Your task to perform on an android device: turn on bluetooth scan Image 0: 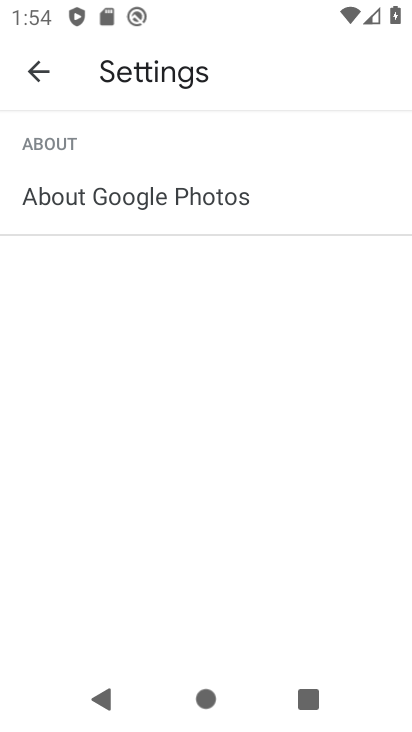
Step 0: press home button
Your task to perform on an android device: turn on bluetooth scan Image 1: 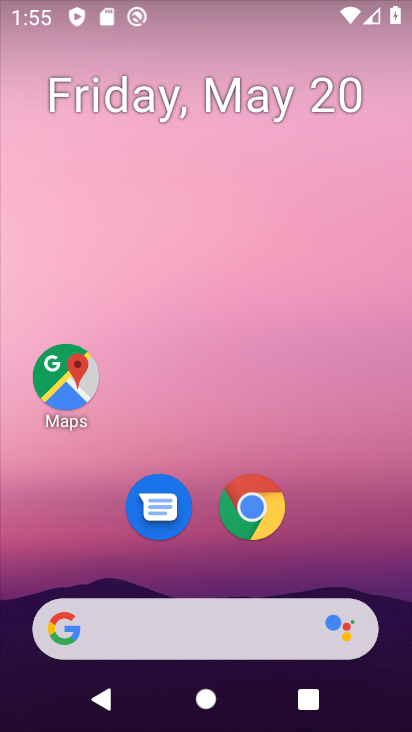
Step 1: drag from (199, 553) to (170, 18)
Your task to perform on an android device: turn on bluetooth scan Image 2: 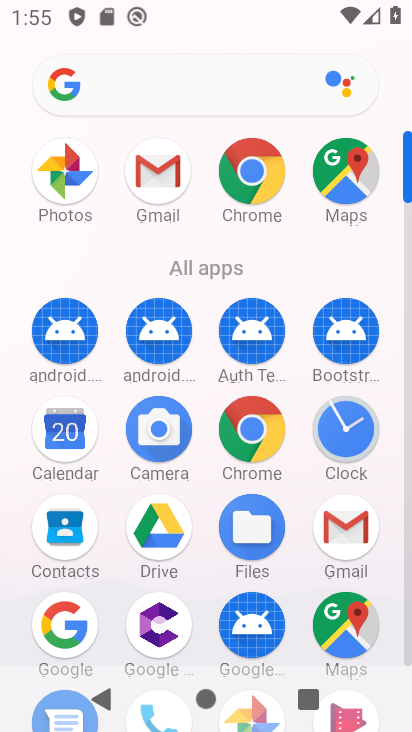
Step 2: drag from (194, 604) to (241, 191)
Your task to perform on an android device: turn on bluetooth scan Image 3: 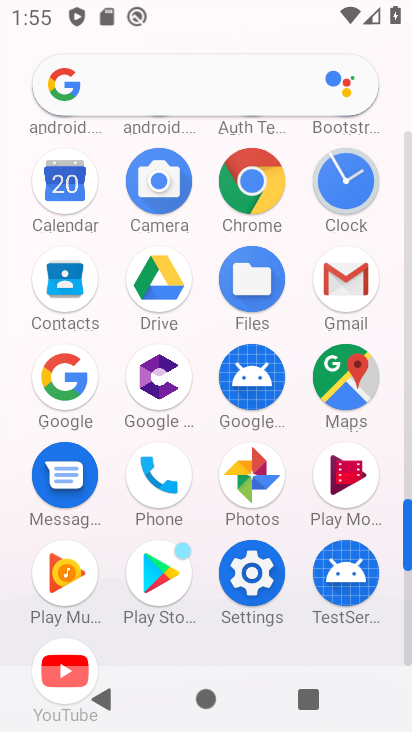
Step 3: click (231, 598)
Your task to perform on an android device: turn on bluetooth scan Image 4: 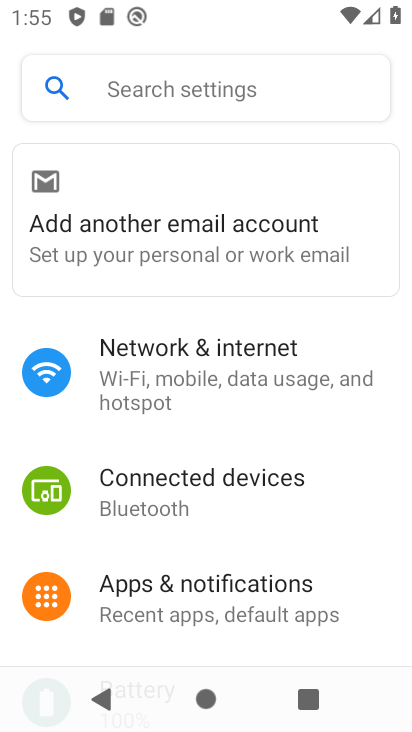
Step 4: drag from (231, 598) to (243, 321)
Your task to perform on an android device: turn on bluetooth scan Image 5: 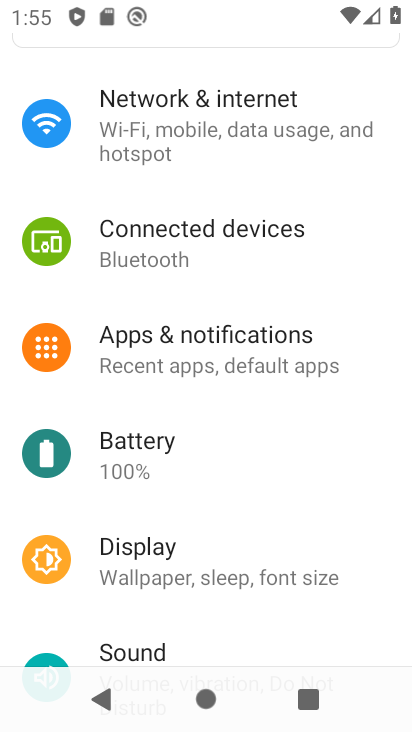
Step 5: drag from (162, 571) to (252, 186)
Your task to perform on an android device: turn on bluetooth scan Image 6: 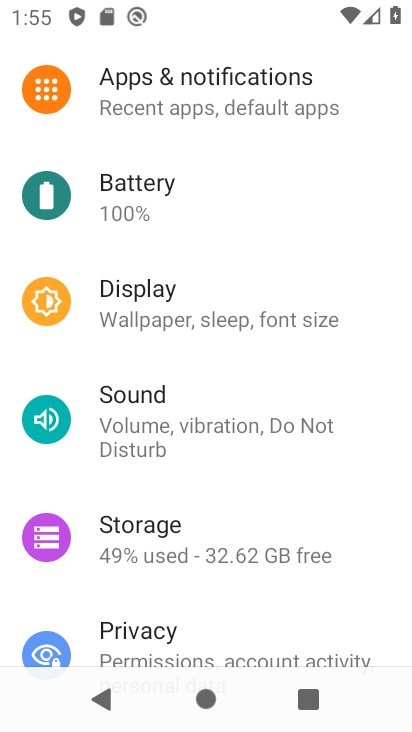
Step 6: drag from (107, 645) to (197, 281)
Your task to perform on an android device: turn on bluetooth scan Image 7: 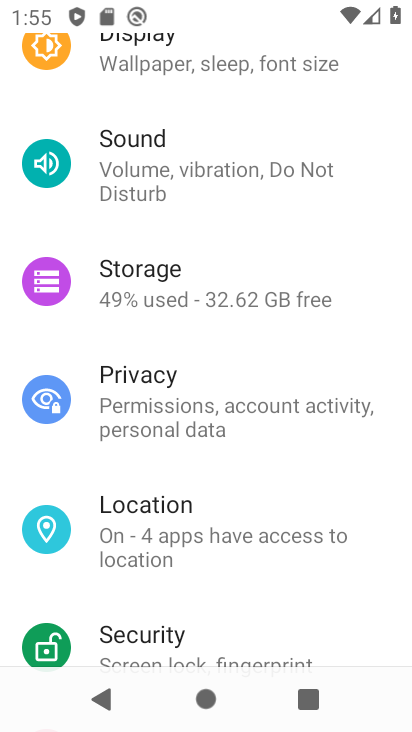
Step 7: click (145, 573)
Your task to perform on an android device: turn on bluetooth scan Image 8: 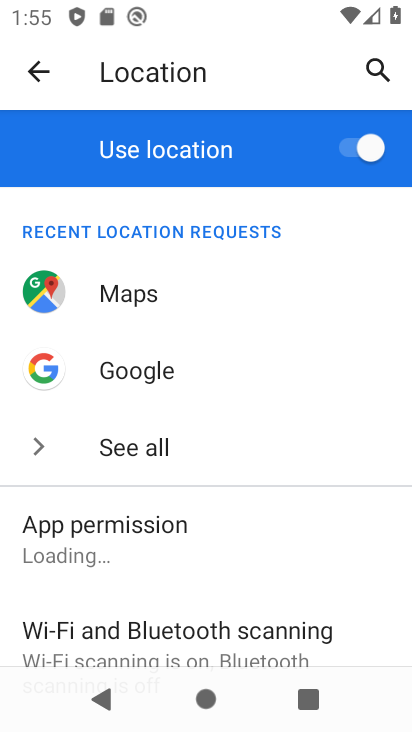
Step 8: drag from (104, 578) to (172, 205)
Your task to perform on an android device: turn on bluetooth scan Image 9: 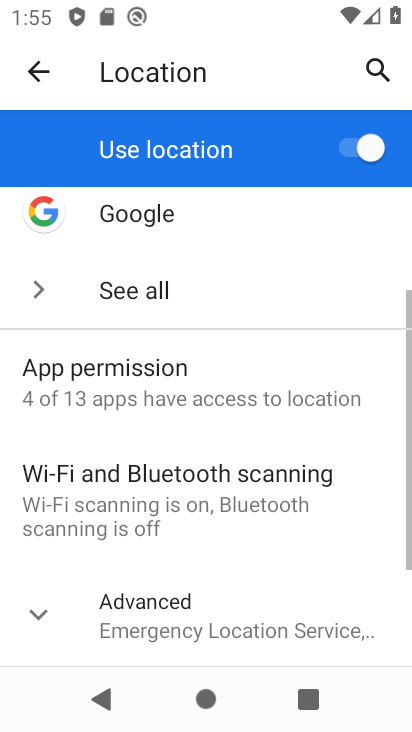
Step 9: click (127, 510)
Your task to perform on an android device: turn on bluetooth scan Image 10: 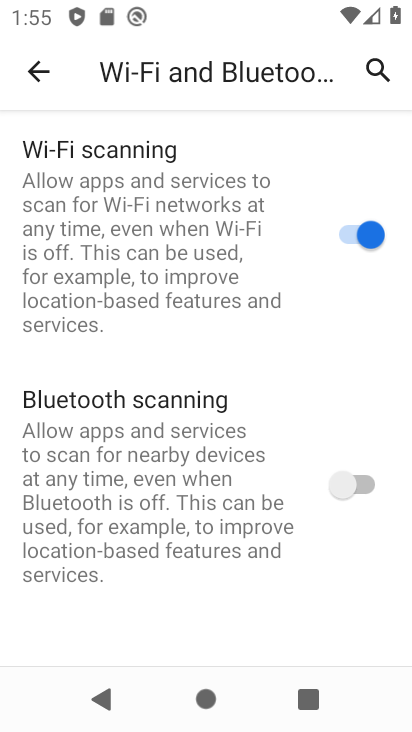
Step 10: click (374, 484)
Your task to perform on an android device: turn on bluetooth scan Image 11: 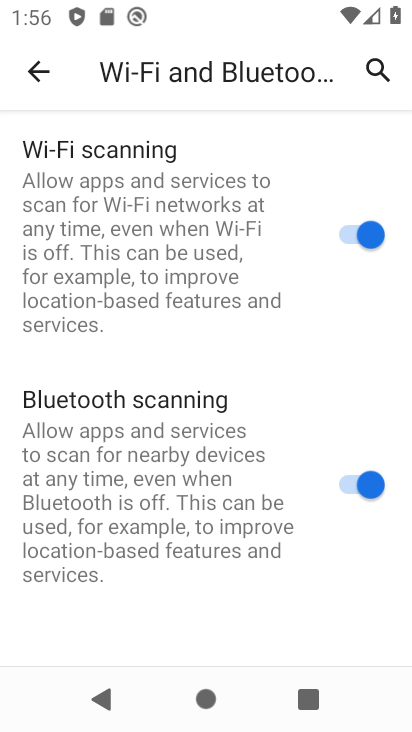
Step 11: task complete